Your task to perform on an android device: toggle data saver in the chrome app Image 0: 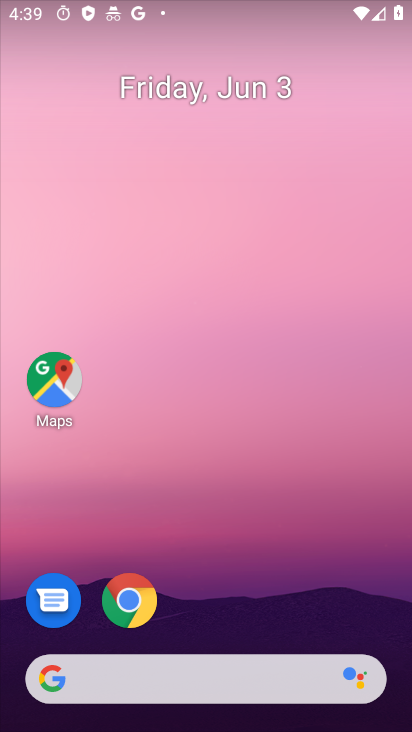
Step 0: click (116, 594)
Your task to perform on an android device: toggle data saver in the chrome app Image 1: 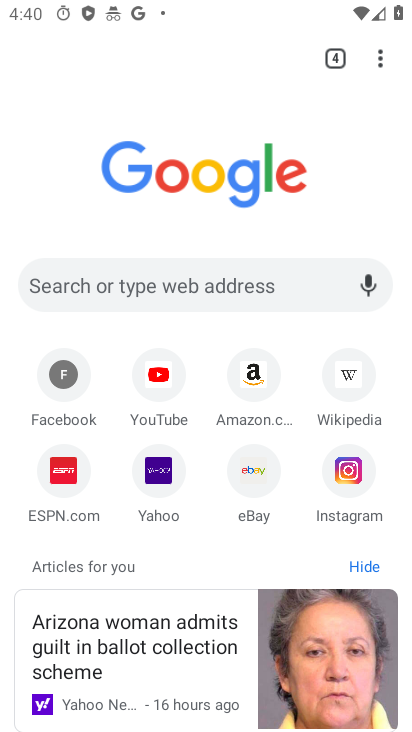
Step 1: click (378, 53)
Your task to perform on an android device: toggle data saver in the chrome app Image 2: 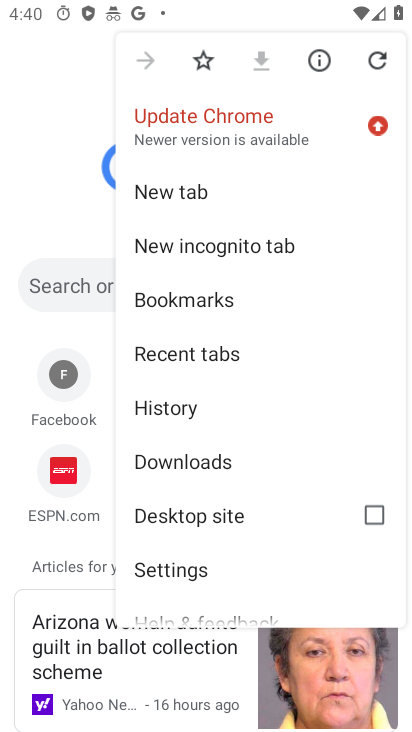
Step 2: click (189, 567)
Your task to perform on an android device: toggle data saver in the chrome app Image 3: 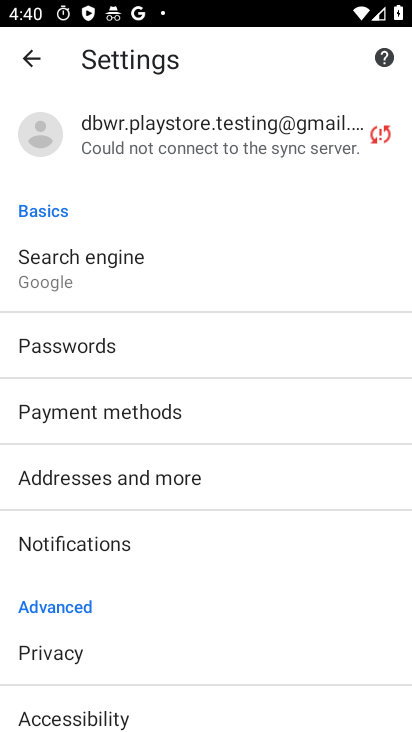
Step 3: drag from (263, 666) to (235, 355)
Your task to perform on an android device: toggle data saver in the chrome app Image 4: 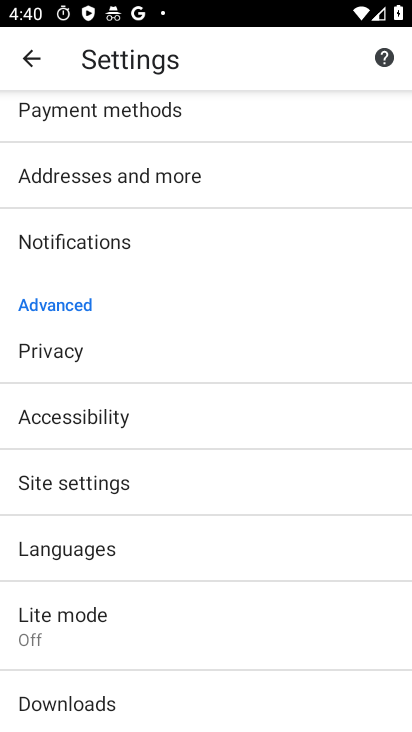
Step 4: click (53, 606)
Your task to perform on an android device: toggle data saver in the chrome app Image 5: 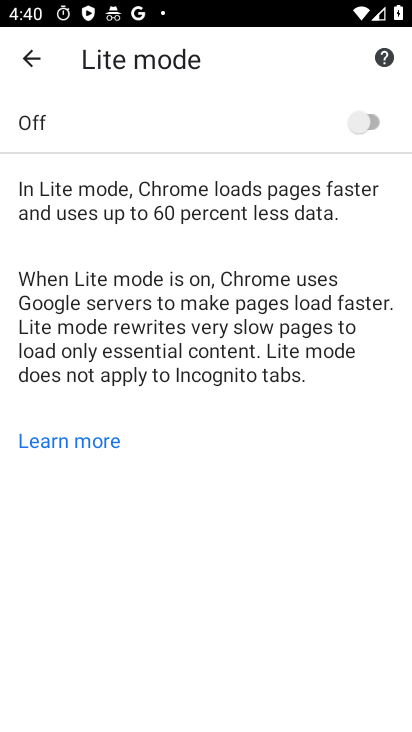
Step 5: click (371, 114)
Your task to perform on an android device: toggle data saver in the chrome app Image 6: 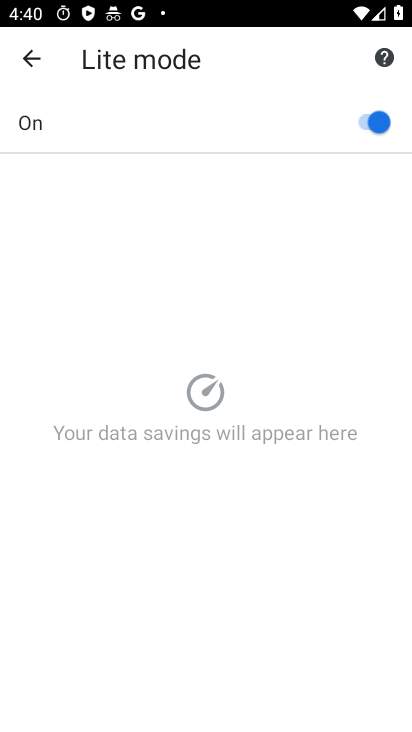
Step 6: task complete